Your task to perform on an android device: Open network settings Image 0: 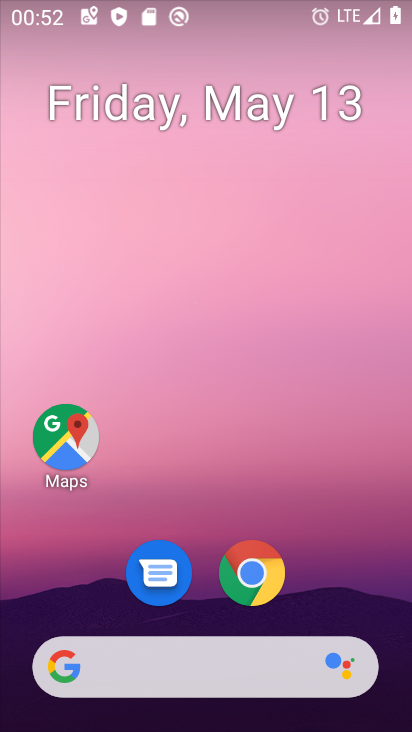
Step 0: drag from (236, 599) to (214, 84)
Your task to perform on an android device: Open network settings Image 1: 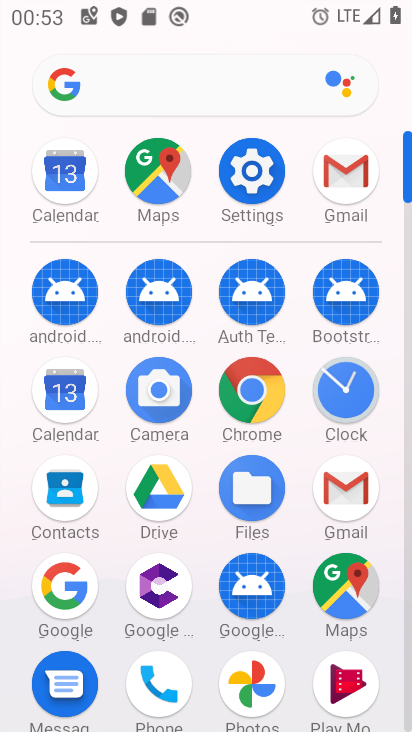
Step 1: click (266, 167)
Your task to perform on an android device: Open network settings Image 2: 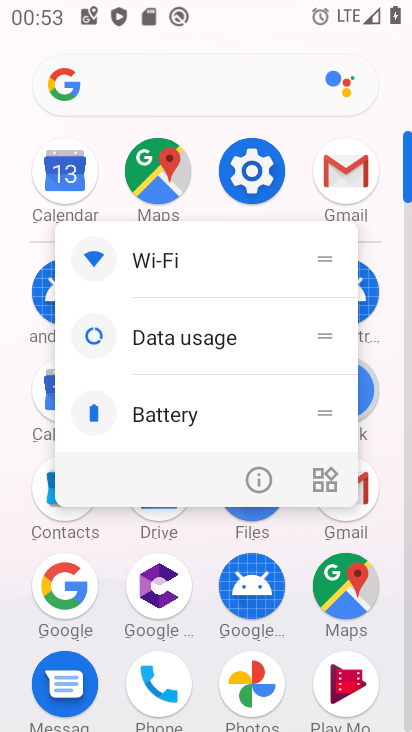
Step 2: click (242, 184)
Your task to perform on an android device: Open network settings Image 3: 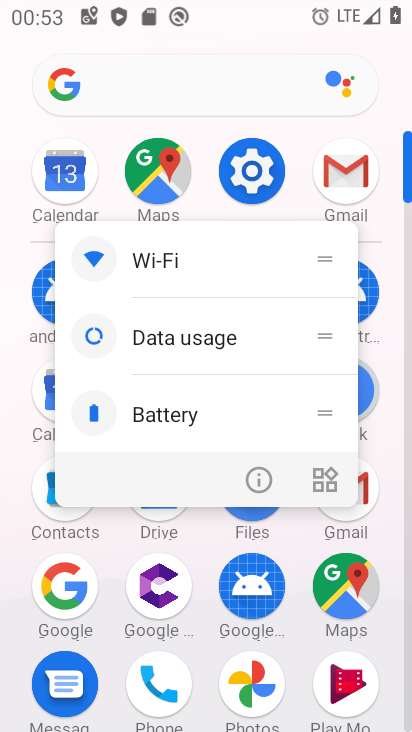
Step 3: click (242, 184)
Your task to perform on an android device: Open network settings Image 4: 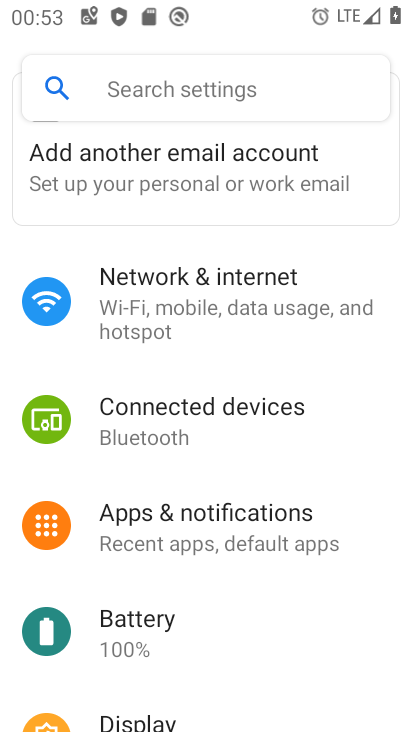
Step 4: click (236, 287)
Your task to perform on an android device: Open network settings Image 5: 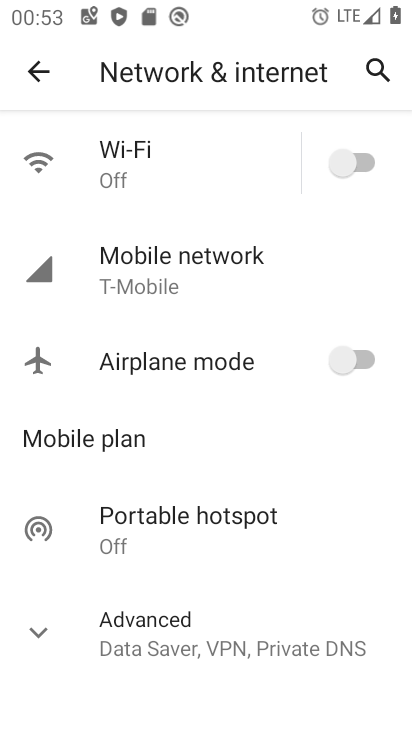
Step 5: task complete